Your task to perform on an android device: change notification settings in the gmail app Image 0: 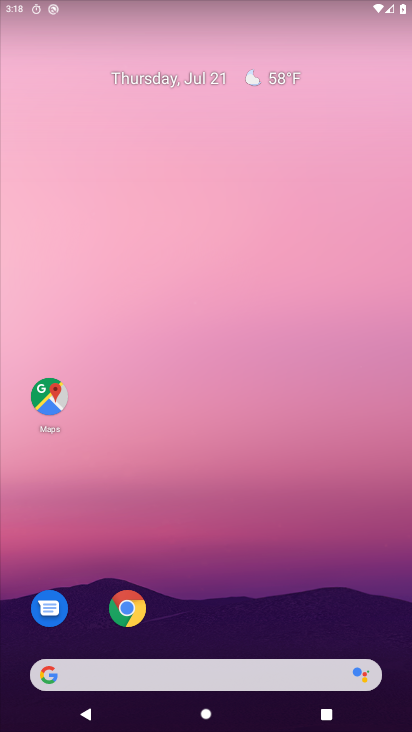
Step 0: press home button
Your task to perform on an android device: change notification settings in the gmail app Image 1: 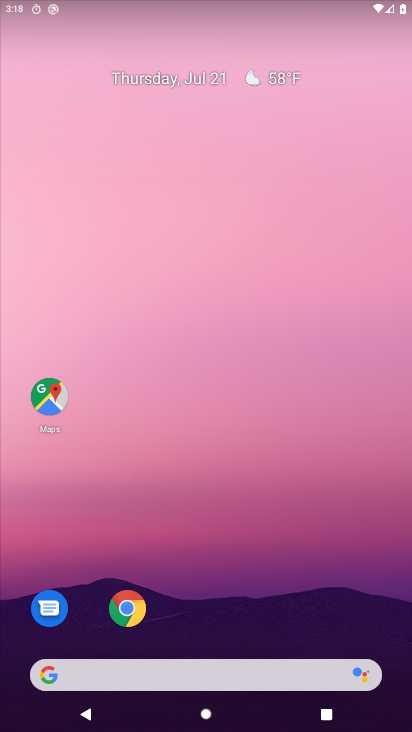
Step 1: drag from (230, 623) to (234, 127)
Your task to perform on an android device: change notification settings in the gmail app Image 2: 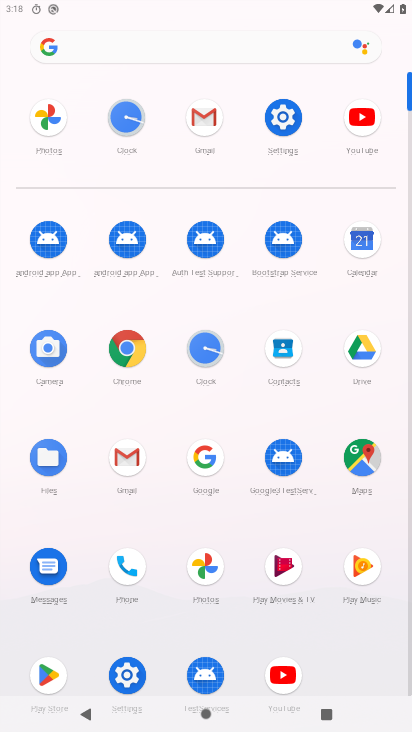
Step 2: click (199, 114)
Your task to perform on an android device: change notification settings in the gmail app Image 3: 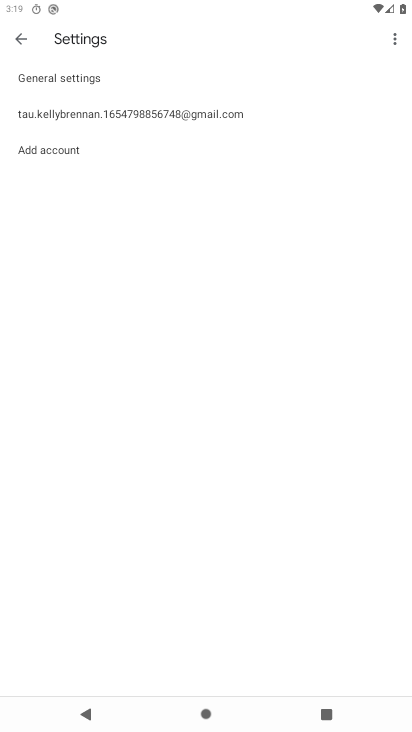
Step 3: click (99, 55)
Your task to perform on an android device: change notification settings in the gmail app Image 4: 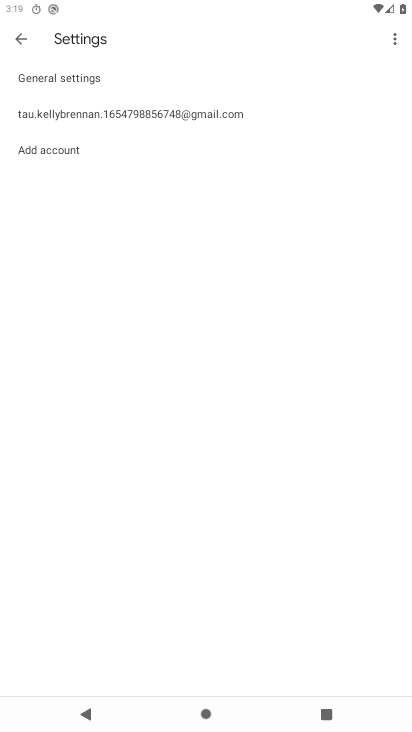
Step 4: click (104, 73)
Your task to perform on an android device: change notification settings in the gmail app Image 5: 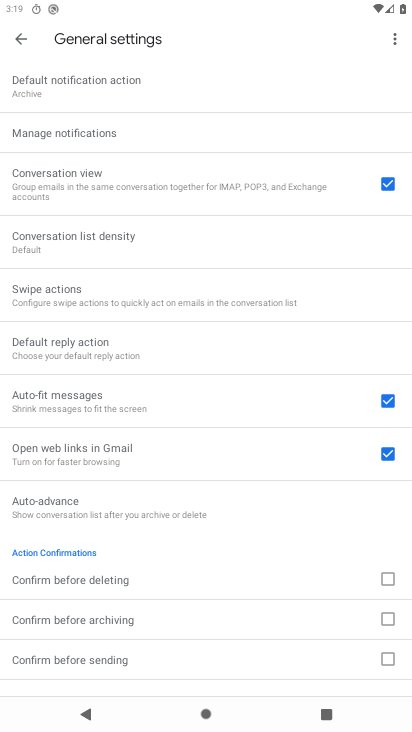
Step 5: click (114, 130)
Your task to perform on an android device: change notification settings in the gmail app Image 6: 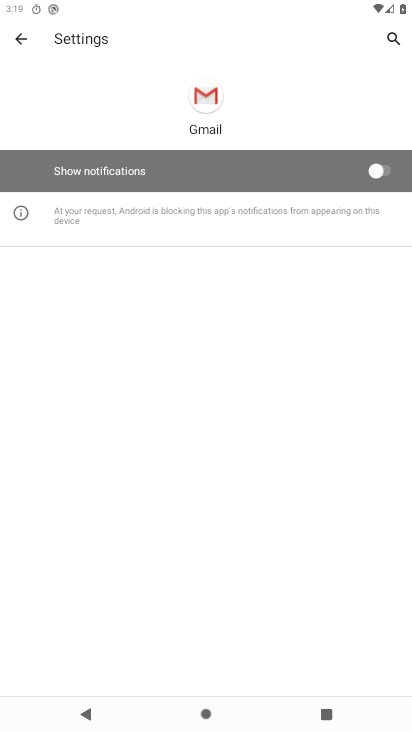
Step 6: click (381, 167)
Your task to perform on an android device: change notification settings in the gmail app Image 7: 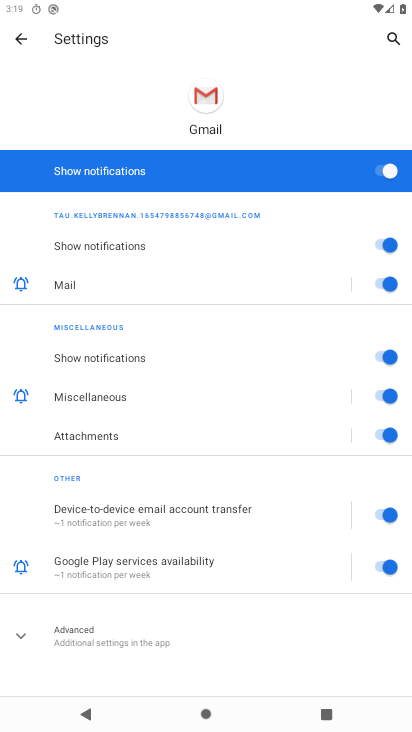
Step 7: task complete